Your task to perform on an android device: Empty the shopping cart on amazon.com. Add "razer nari" to the cart on amazon.com, then select checkout. Image 0: 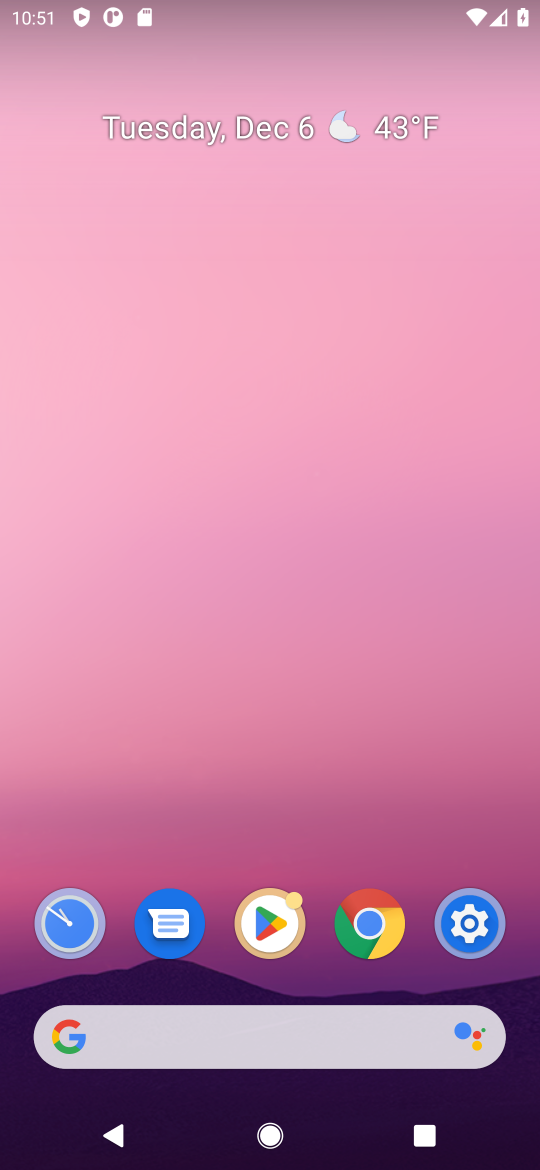
Step 0: click (374, 938)
Your task to perform on an android device: Empty the shopping cart on amazon.com. Add "razer nari" to the cart on amazon.com, then select checkout. Image 1: 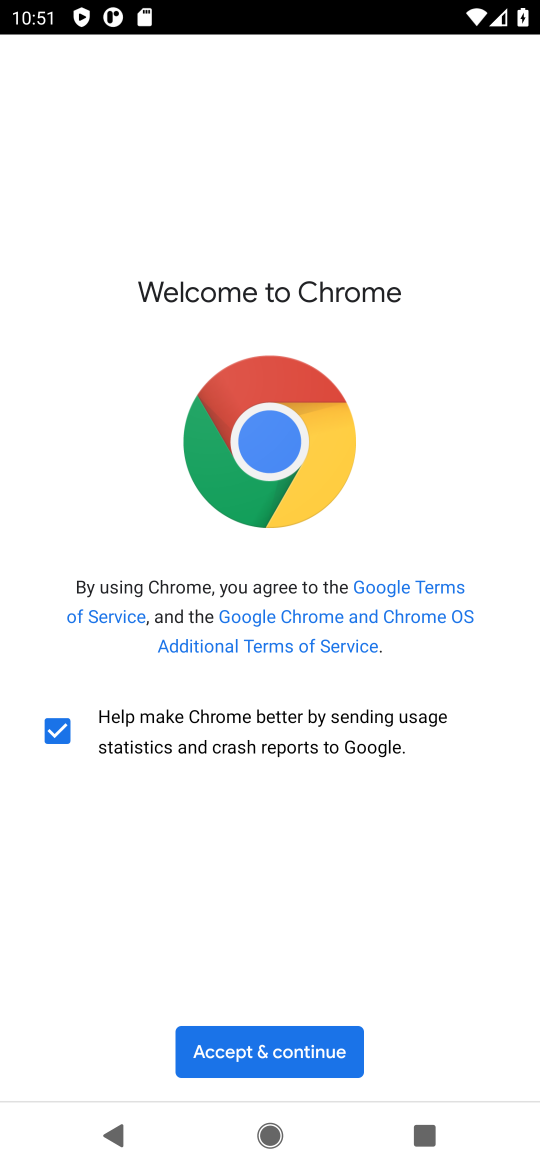
Step 1: click (280, 1037)
Your task to perform on an android device: Empty the shopping cart on amazon.com. Add "razer nari" to the cart on amazon.com, then select checkout. Image 2: 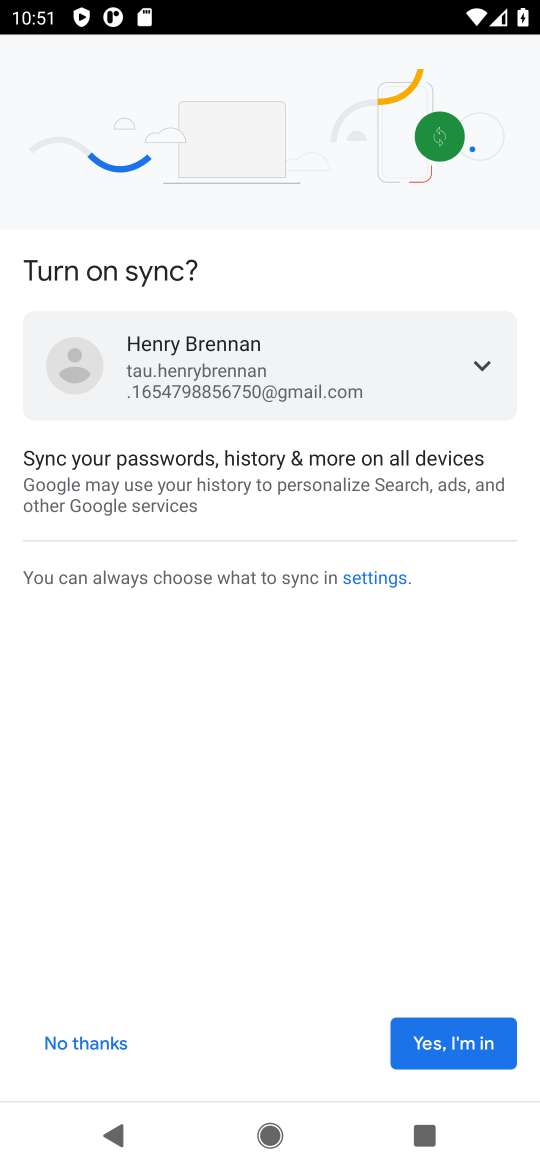
Step 2: click (454, 1036)
Your task to perform on an android device: Empty the shopping cart on amazon.com. Add "razer nari" to the cart on amazon.com, then select checkout. Image 3: 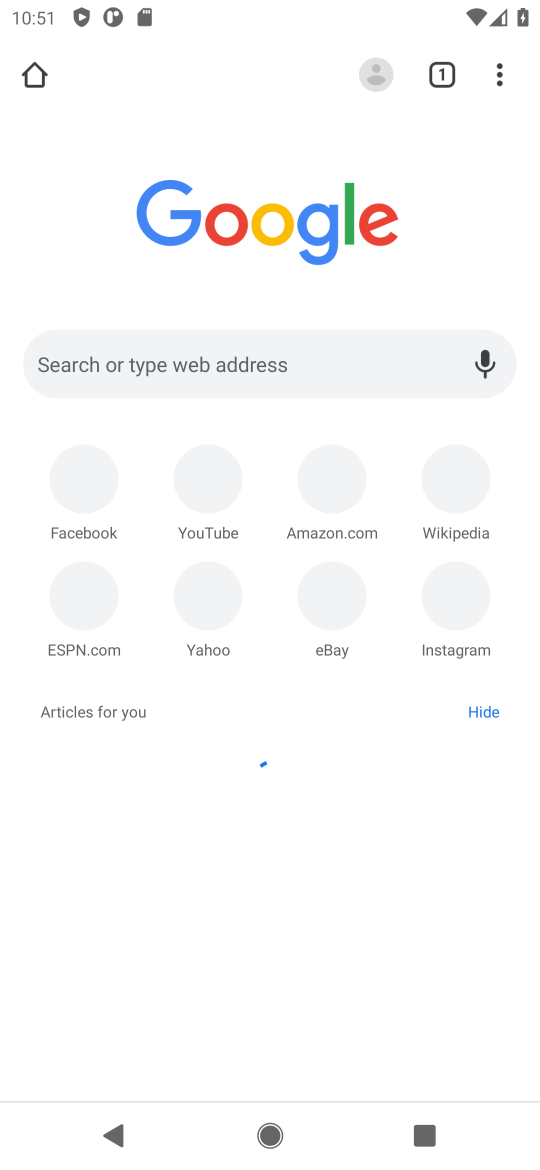
Step 3: click (320, 488)
Your task to perform on an android device: Empty the shopping cart on amazon.com. Add "razer nari" to the cart on amazon.com, then select checkout. Image 4: 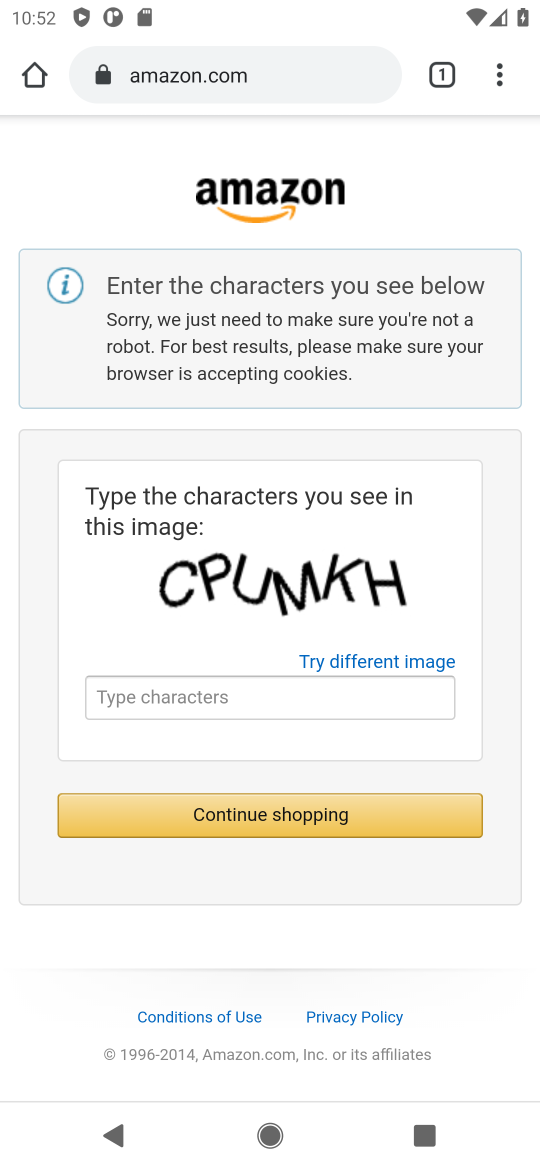
Step 4: click (281, 695)
Your task to perform on an android device: Empty the shopping cart on amazon.com. Add "razer nari" to the cart on amazon.com, then select checkout. Image 5: 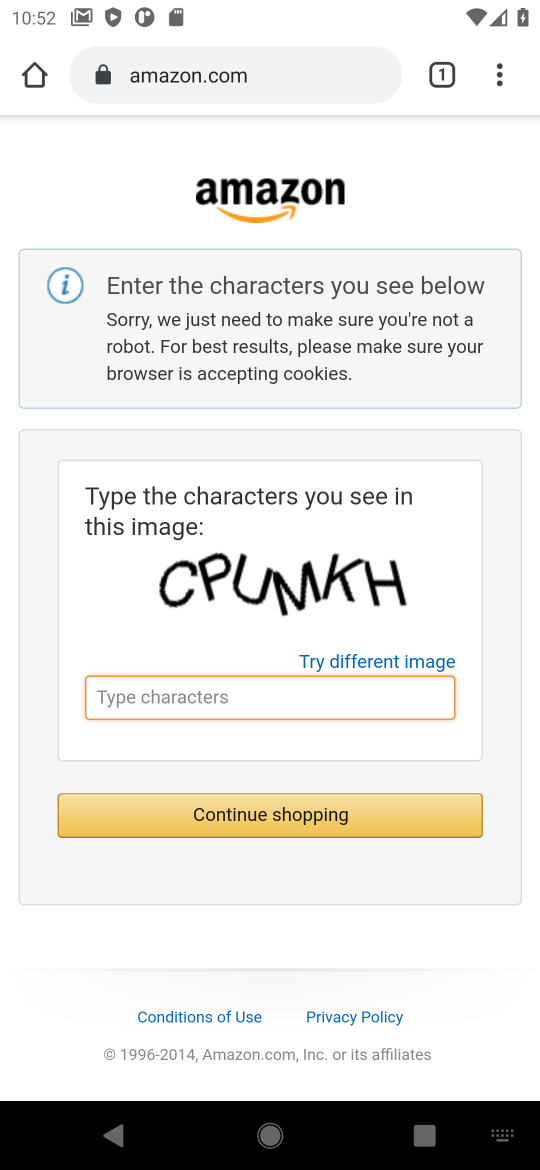
Step 5: type "CPUMKH"
Your task to perform on an android device: Empty the shopping cart on amazon.com. Add "razer nari" to the cart on amazon.com, then select checkout. Image 6: 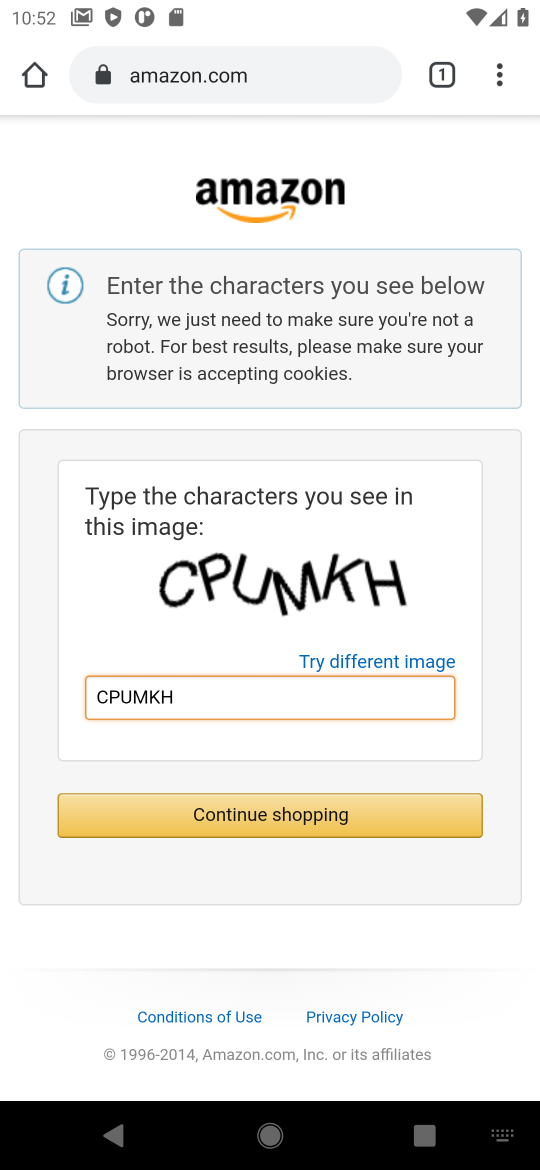
Step 6: click (248, 815)
Your task to perform on an android device: Empty the shopping cart on amazon.com. Add "razer nari" to the cart on amazon.com, then select checkout. Image 7: 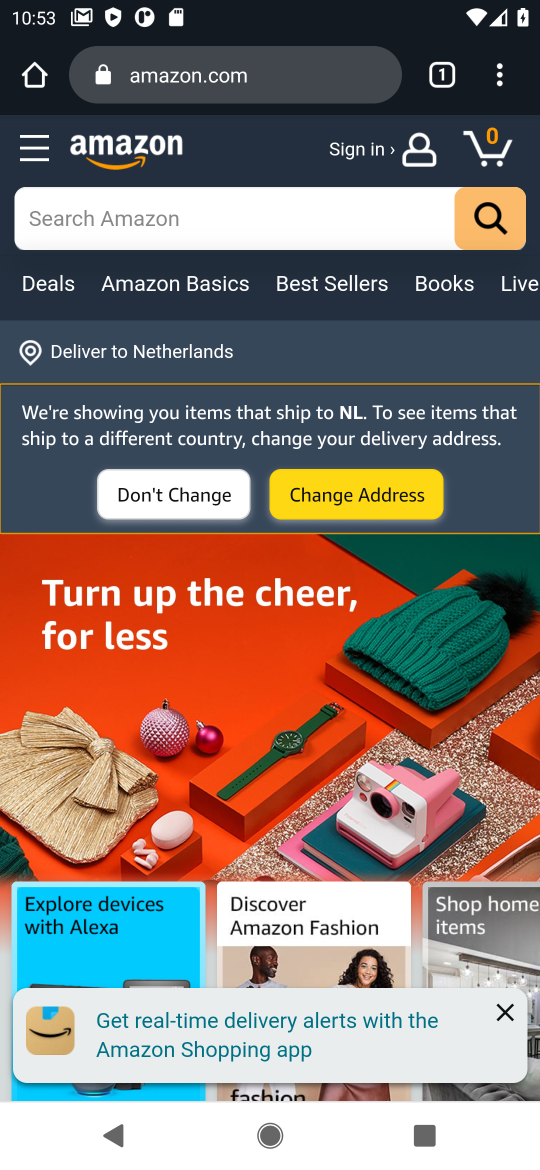
Step 7: click (161, 222)
Your task to perform on an android device: Empty the shopping cart on amazon.com. Add "razer nari" to the cart on amazon.com, then select checkout. Image 8: 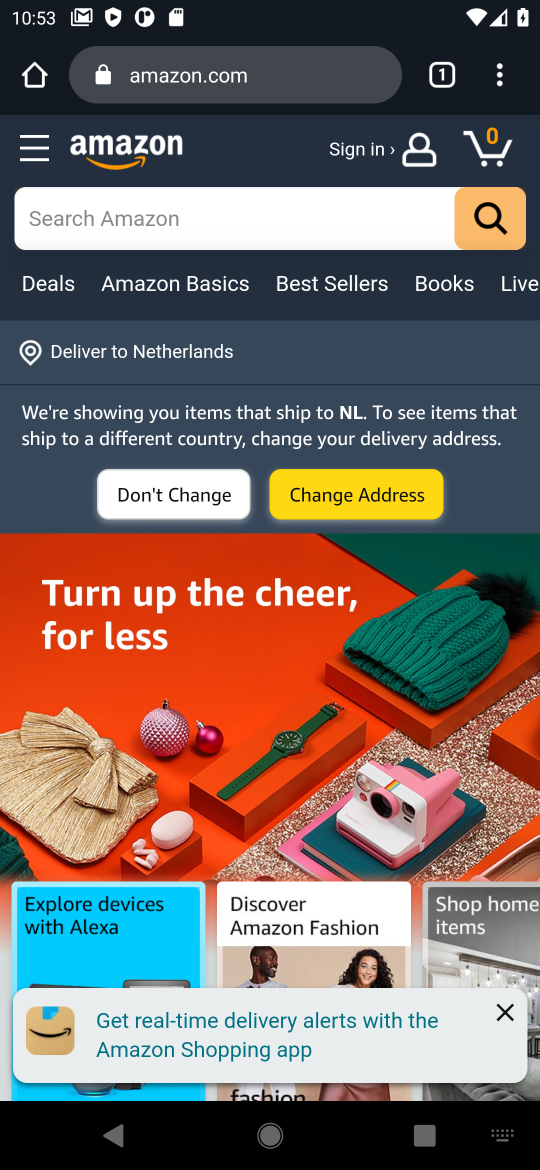
Step 8: type "razer nari"
Your task to perform on an android device: Empty the shopping cart on amazon.com. Add "razer nari" to the cart on amazon.com, then select checkout. Image 9: 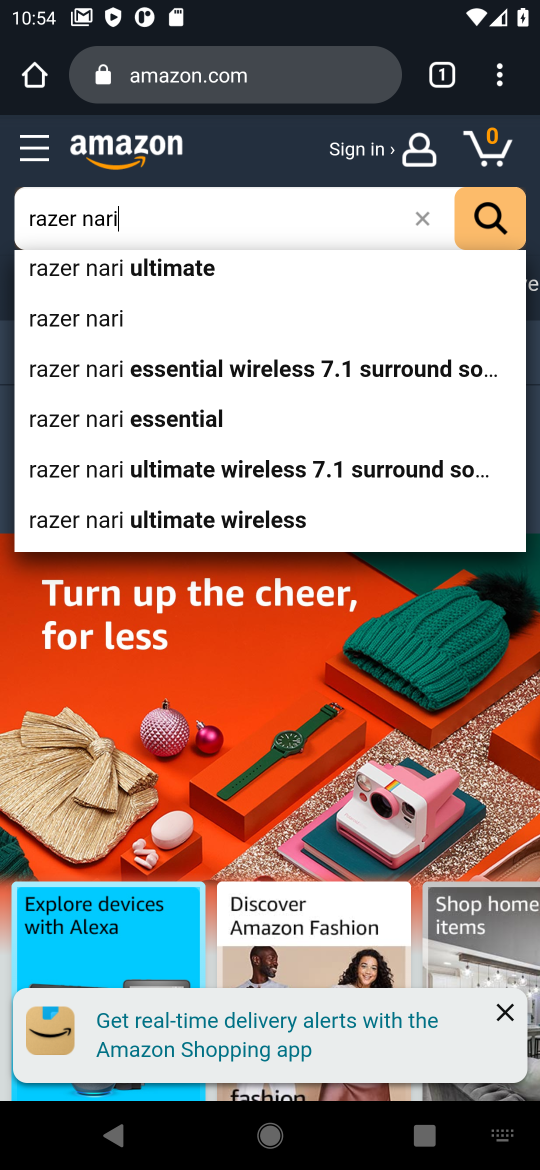
Step 9: click (152, 267)
Your task to perform on an android device: Empty the shopping cart on amazon.com. Add "razer nari" to the cart on amazon.com, then select checkout. Image 10: 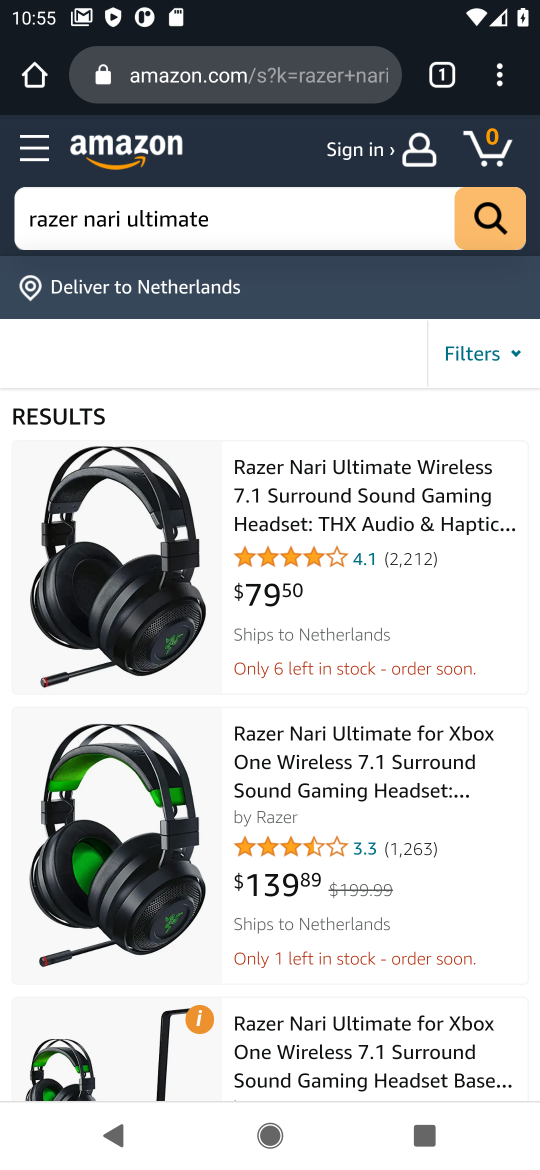
Step 10: click (141, 533)
Your task to perform on an android device: Empty the shopping cart on amazon.com. Add "razer nari" to the cart on amazon.com, then select checkout. Image 11: 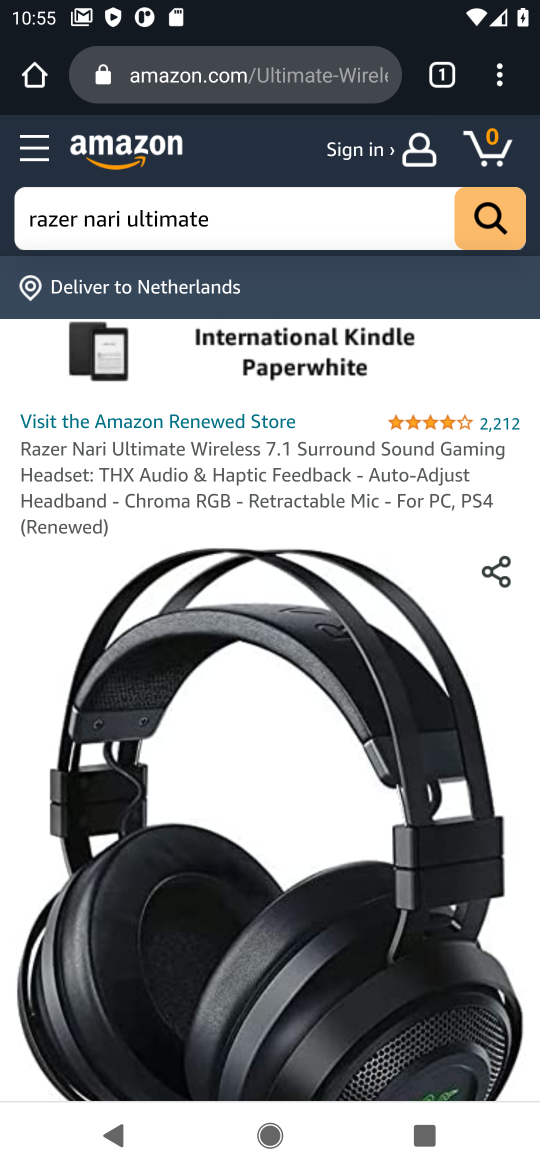
Step 11: drag from (286, 980) to (300, 253)
Your task to perform on an android device: Empty the shopping cart on amazon.com. Add "razer nari" to the cart on amazon.com, then select checkout. Image 12: 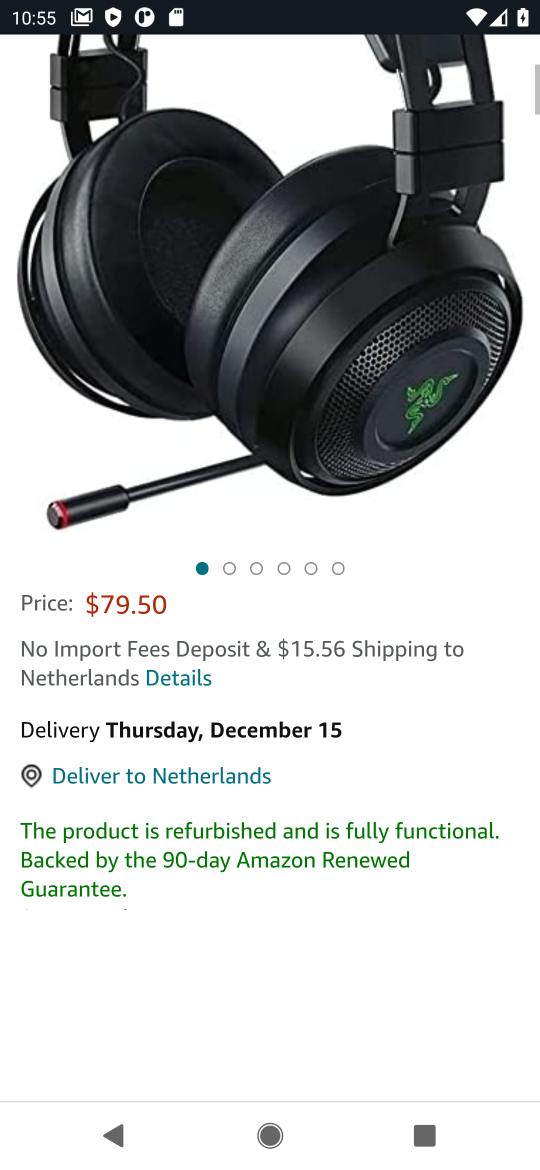
Step 12: drag from (343, 985) to (321, 229)
Your task to perform on an android device: Empty the shopping cart on amazon.com. Add "razer nari" to the cart on amazon.com, then select checkout. Image 13: 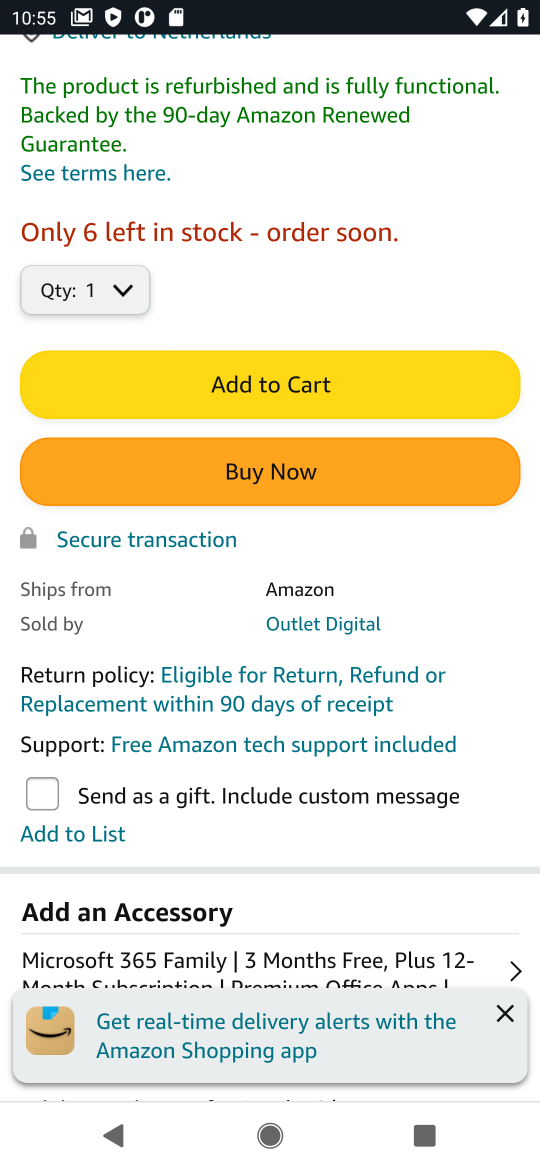
Step 13: click (278, 386)
Your task to perform on an android device: Empty the shopping cart on amazon.com. Add "razer nari" to the cart on amazon.com, then select checkout. Image 14: 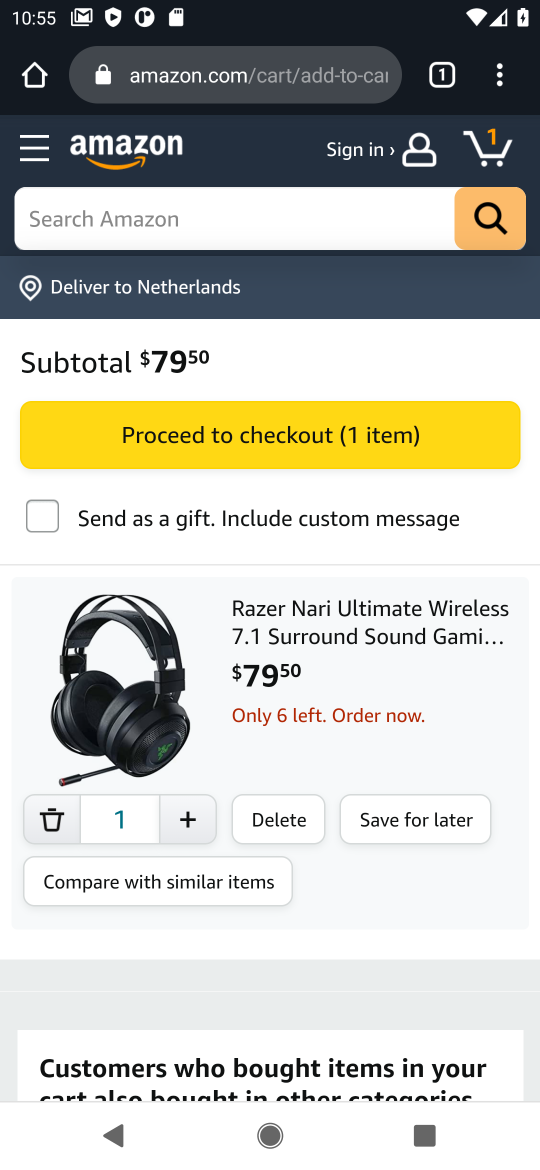
Step 14: click (291, 433)
Your task to perform on an android device: Empty the shopping cart on amazon.com. Add "razer nari" to the cart on amazon.com, then select checkout. Image 15: 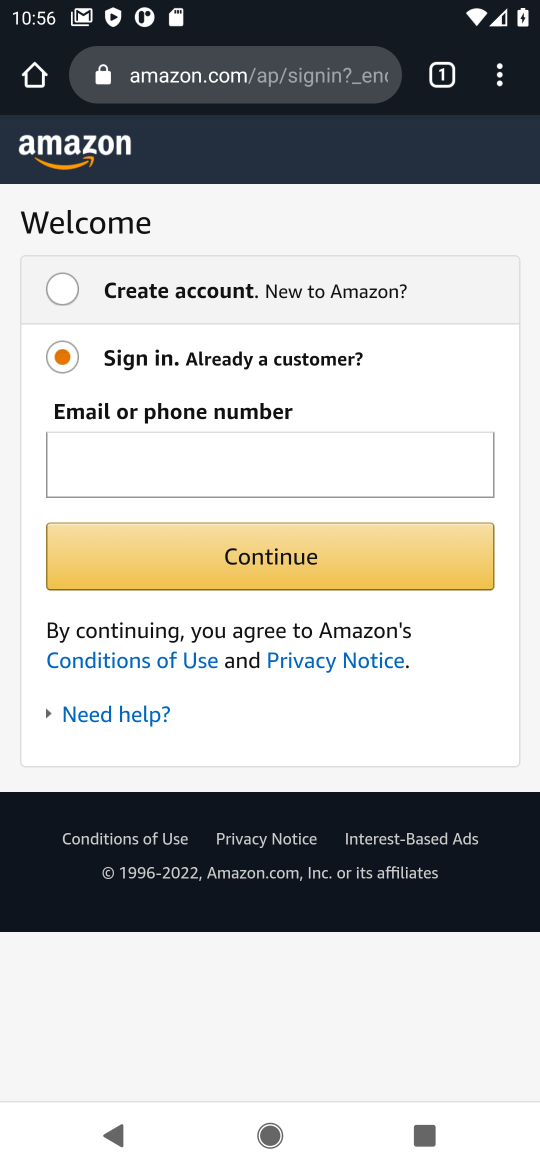
Step 15: task complete